Your task to perform on an android device: turn off location history Image 0: 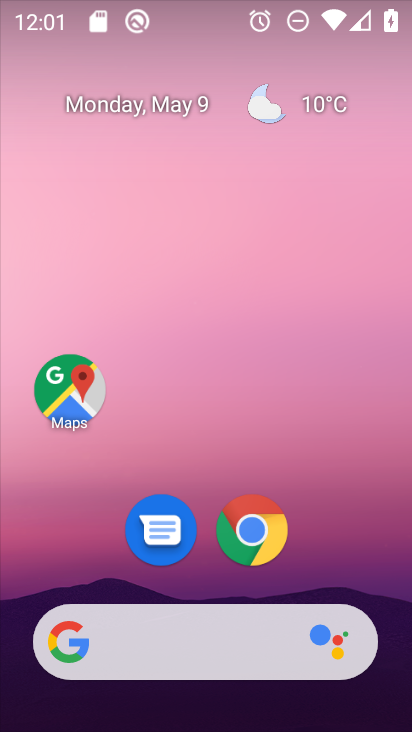
Step 0: drag from (180, 562) to (319, 2)
Your task to perform on an android device: turn off location history Image 1: 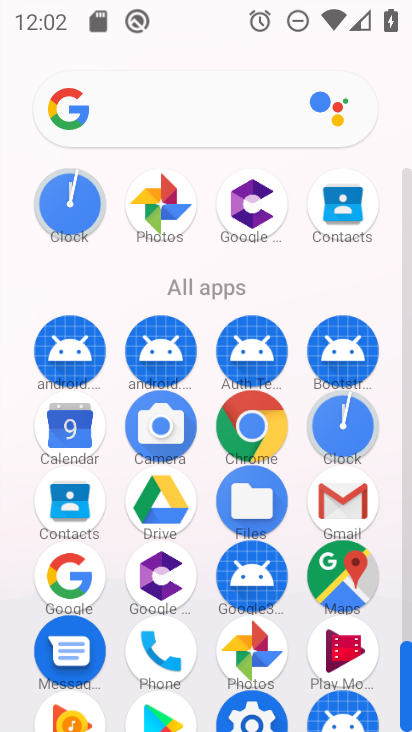
Step 1: click (263, 708)
Your task to perform on an android device: turn off location history Image 2: 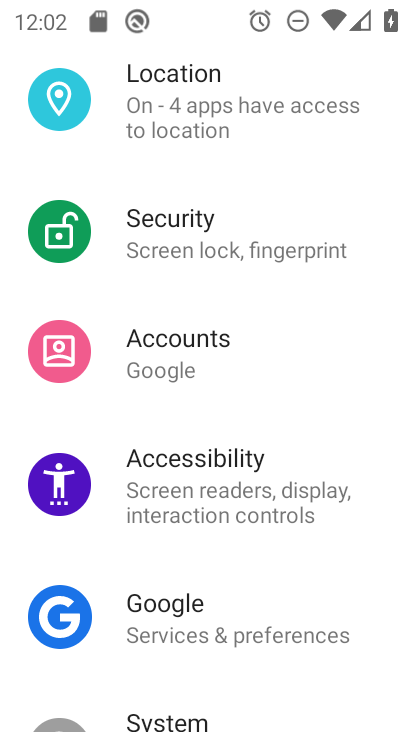
Step 2: click (214, 81)
Your task to perform on an android device: turn off location history Image 3: 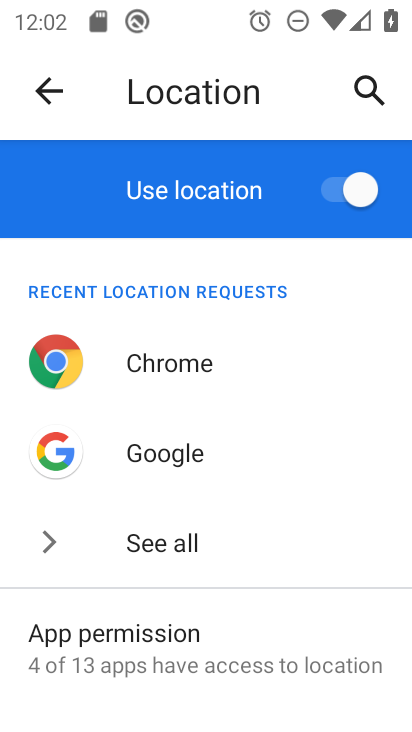
Step 3: drag from (83, 598) to (151, 194)
Your task to perform on an android device: turn off location history Image 4: 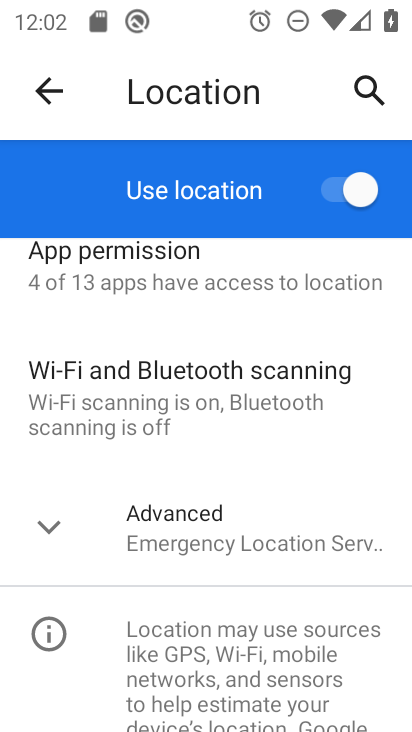
Step 4: drag from (260, 693) to (282, 320)
Your task to perform on an android device: turn off location history Image 5: 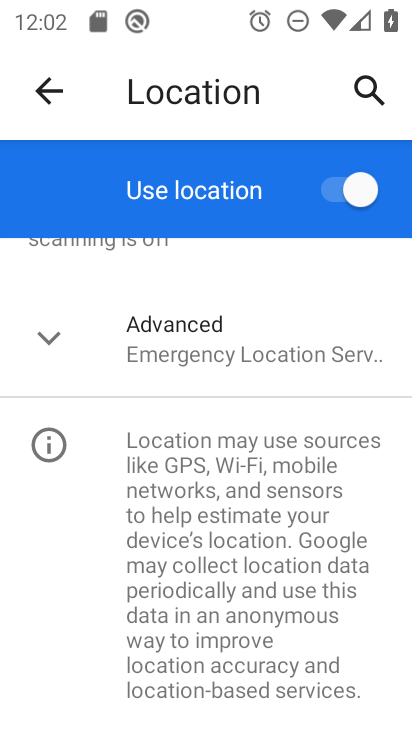
Step 5: click (257, 349)
Your task to perform on an android device: turn off location history Image 6: 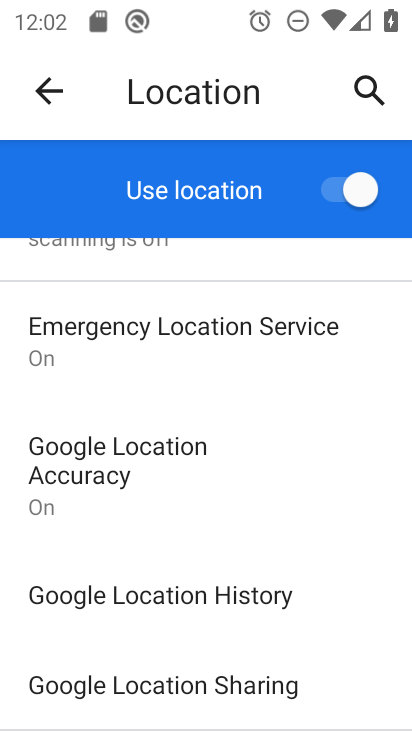
Step 6: click (146, 611)
Your task to perform on an android device: turn off location history Image 7: 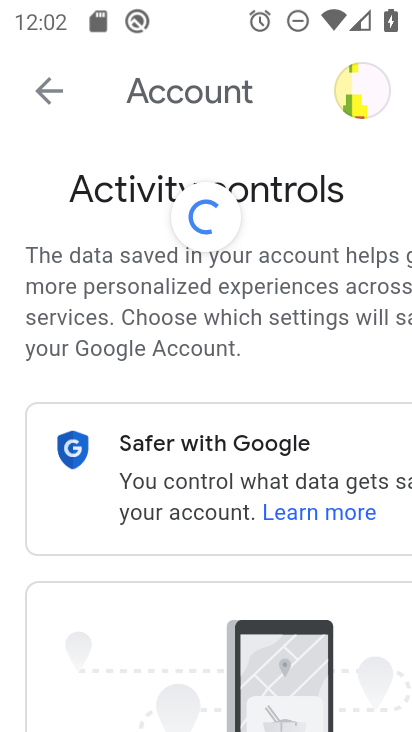
Step 7: task complete